Your task to perform on an android device: turn off sleep mode Image 0: 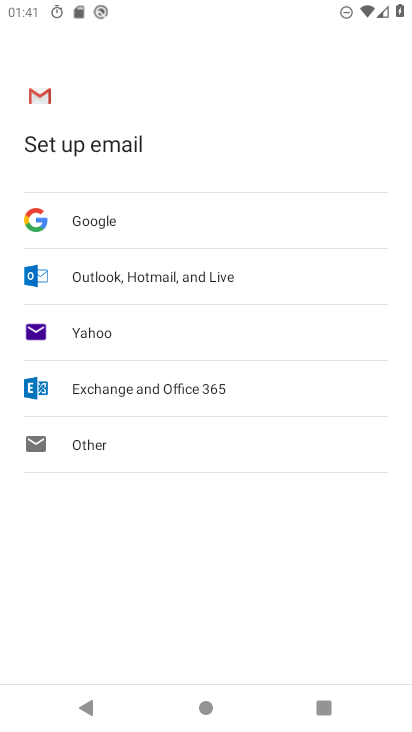
Step 0: press home button
Your task to perform on an android device: turn off sleep mode Image 1: 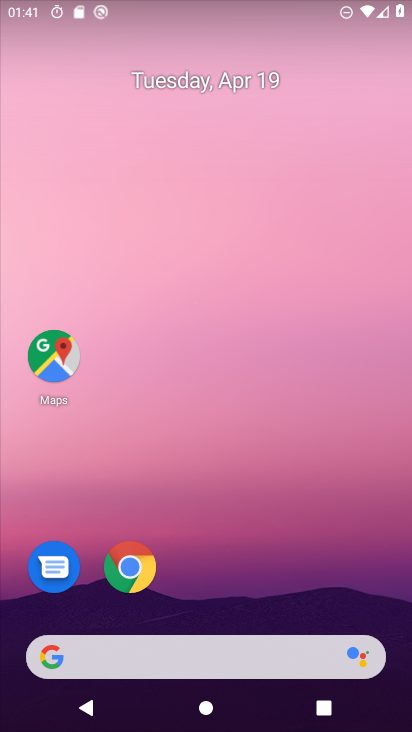
Step 1: drag from (216, 585) to (301, 57)
Your task to perform on an android device: turn off sleep mode Image 2: 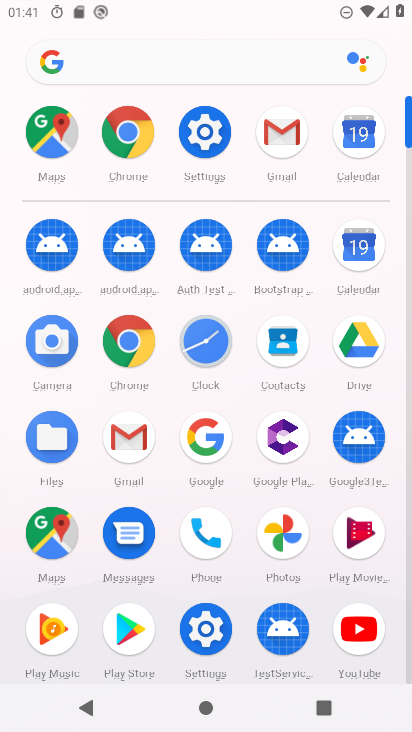
Step 2: click (211, 129)
Your task to perform on an android device: turn off sleep mode Image 3: 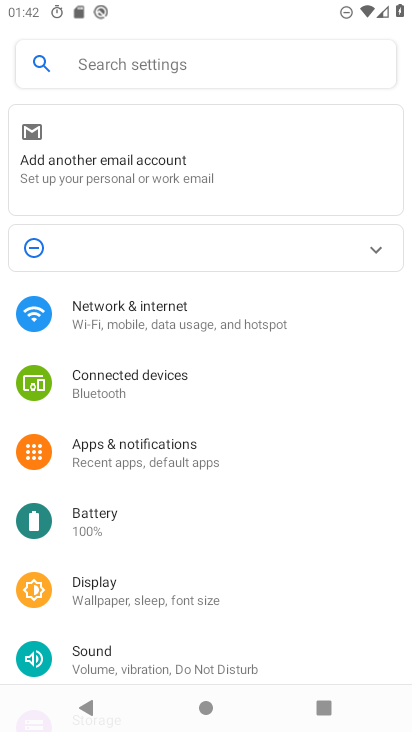
Step 3: drag from (277, 601) to (299, 331)
Your task to perform on an android device: turn off sleep mode Image 4: 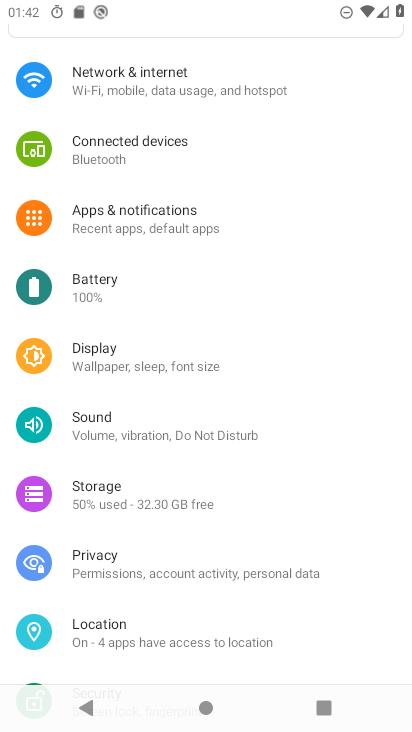
Step 4: click (125, 360)
Your task to perform on an android device: turn off sleep mode Image 5: 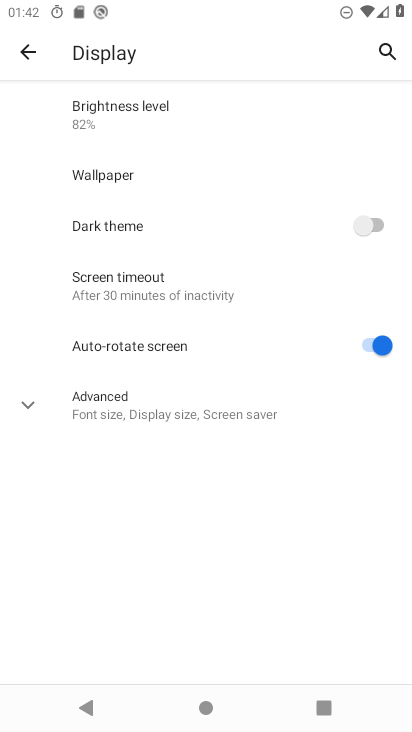
Step 5: click (183, 287)
Your task to perform on an android device: turn off sleep mode Image 6: 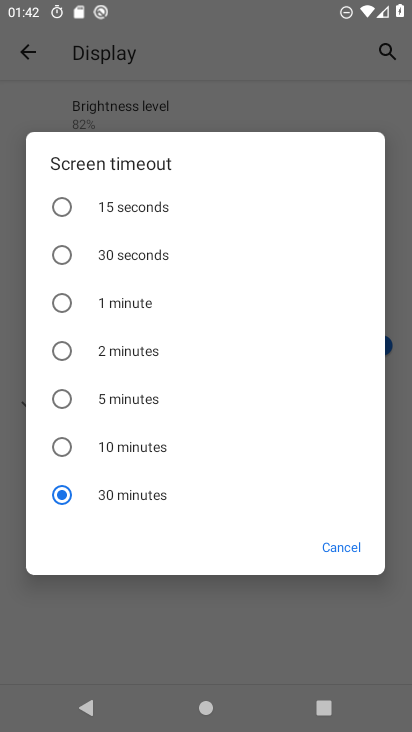
Step 6: task complete